Your task to perform on an android device: Go to Yahoo.com Image 0: 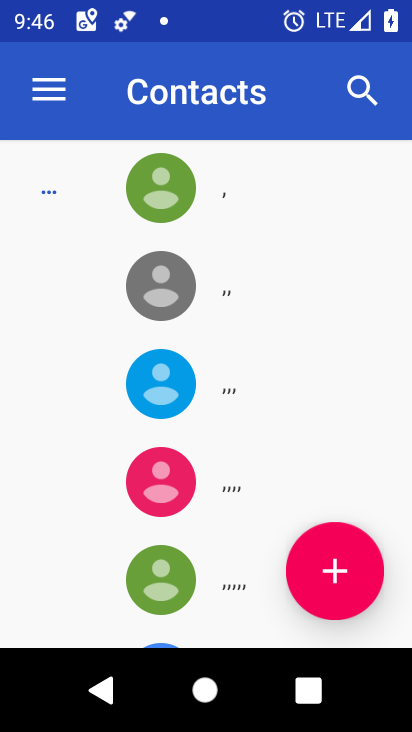
Step 0: press home button
Your task to perform on an android device: Go to Yahoo.com Image 1: 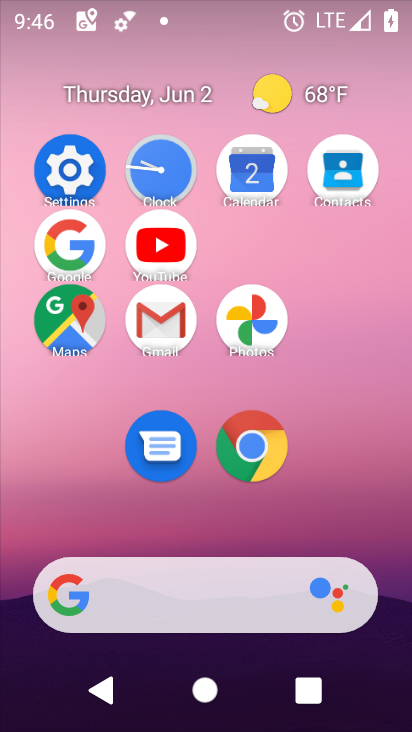
Step 1: click (281, 459)
Your task to perform on an android device: Go to Yahoo.com Image 2: 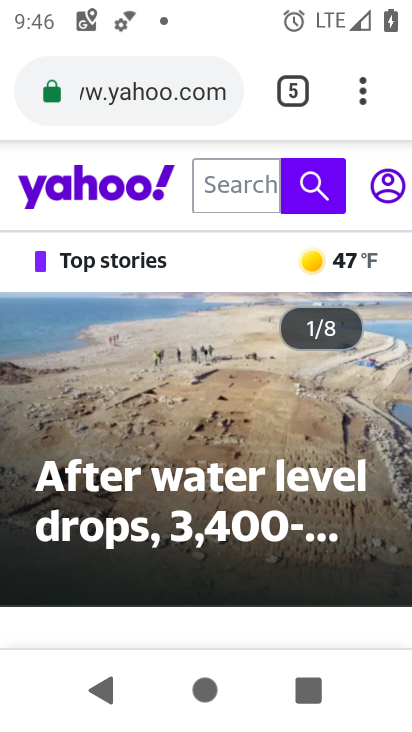
Step 2: task complete